Your task to perform on an android device: turn on javascript in the chrome app Image 0: 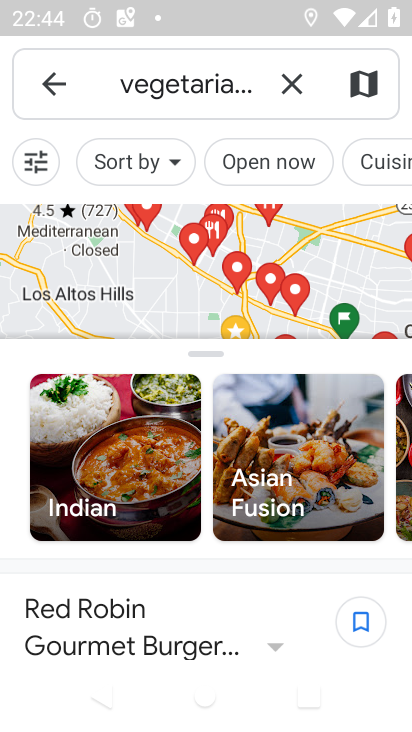
Step 0: press home button
Your task to perform on an android device: turn on javascript in the chrome app Image 1: 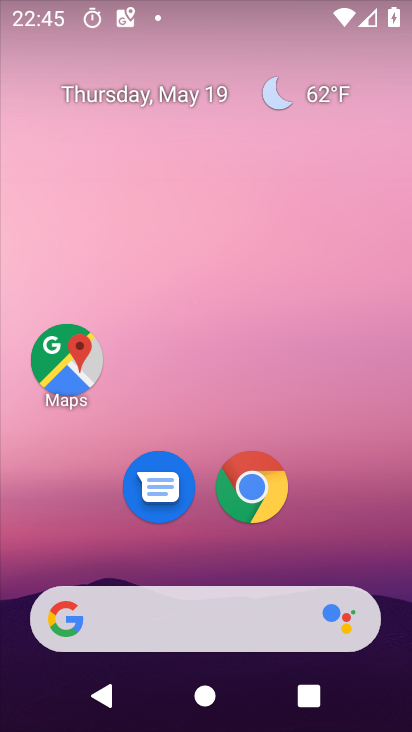
Step 1: click (257, 495)
Your task to perform on an android device: turn on javascript in the chrome app Image 2: 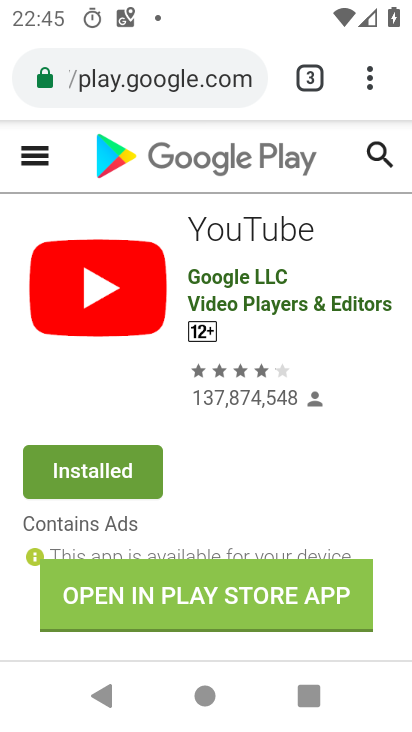
Step 2: click (375, 76)
Your task to perform on an android device: turn on javascript in the chrome app Image 3: 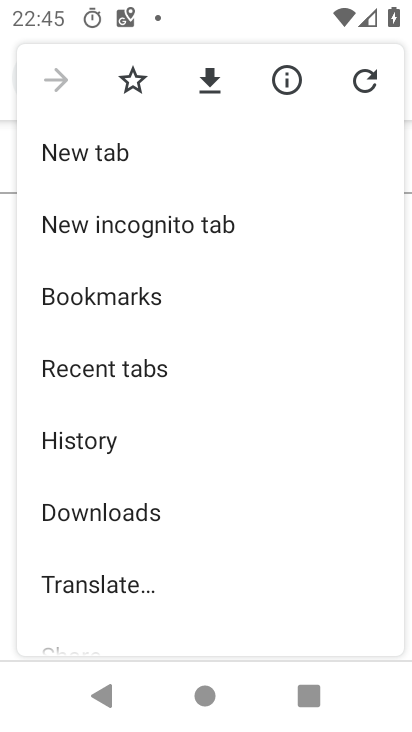
Step 3: drag from (231, 611) to (230, 255)
Your task to perform on an android device: turn on javascript in the chrome app Image 4: 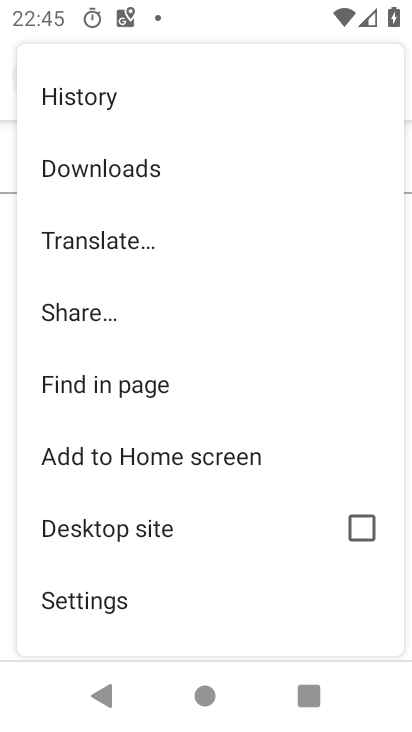
Step 4: click (119, 603)
Your task to perform on an android device: turn on javascript in the chrome app Image 5: 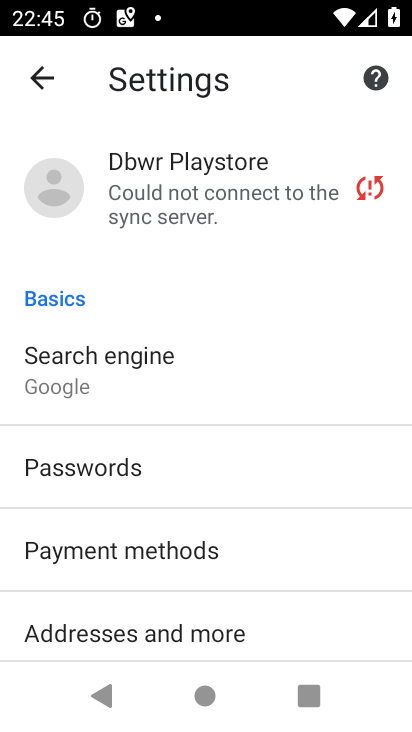
Step 5: drag from (326, 565) to (289, 258)
Your task to perform on an android device: turn on javascript in the chrome app Image 6: 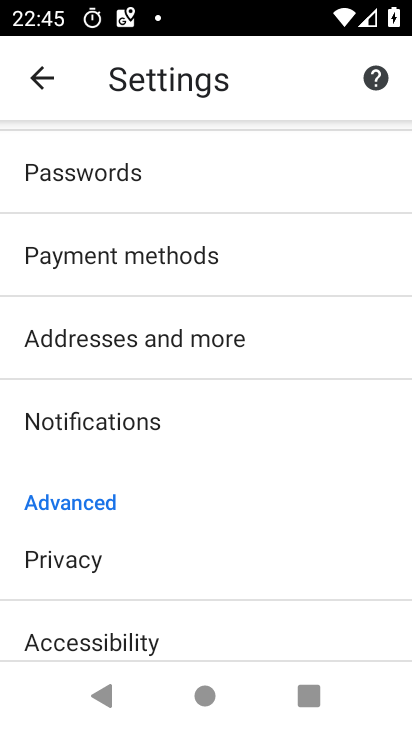
Step 6: drag from (213, 619) to (245, 355)
Your task to perform on an android device: turn on javascript in the chrome app Image 7: 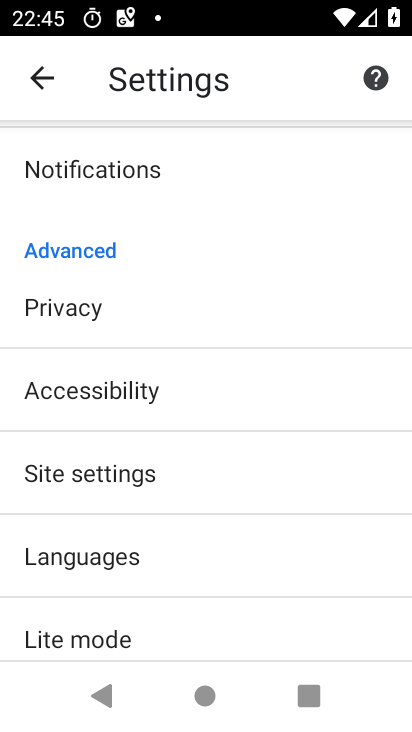
Step 7: click (182, 472)
Your task to perform on an android device: turn on javascript in the chrome app Image 8: 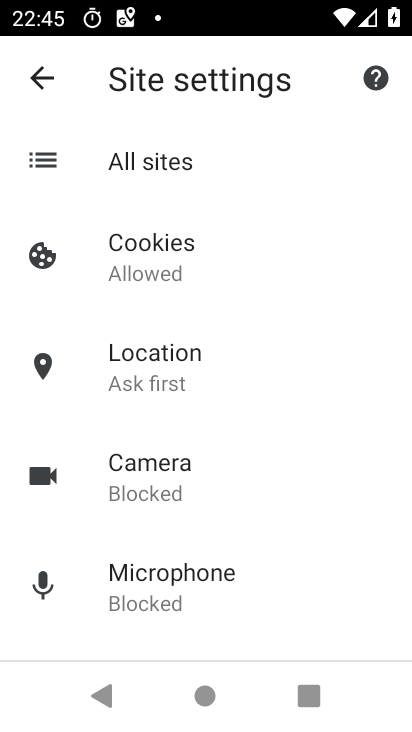
Step 8: drag from (312, 597) to (287, 336)
Your task to perform on an android device: turn on javascript in the chrome app Image 9: 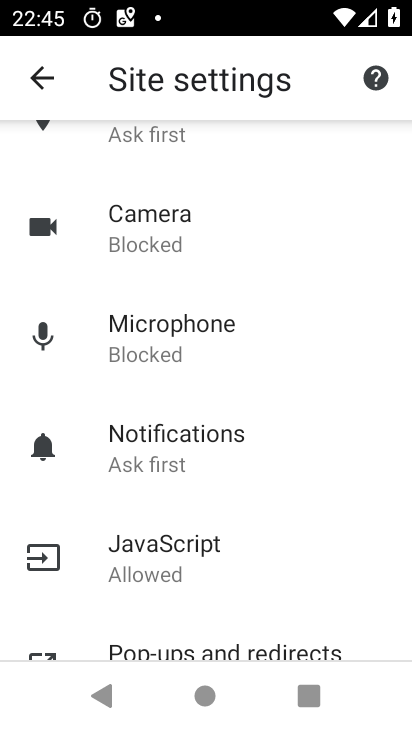
Step 9: click (204, 553)
Your task to perform on an android device: turn on javascript in the chrome app Image 10: 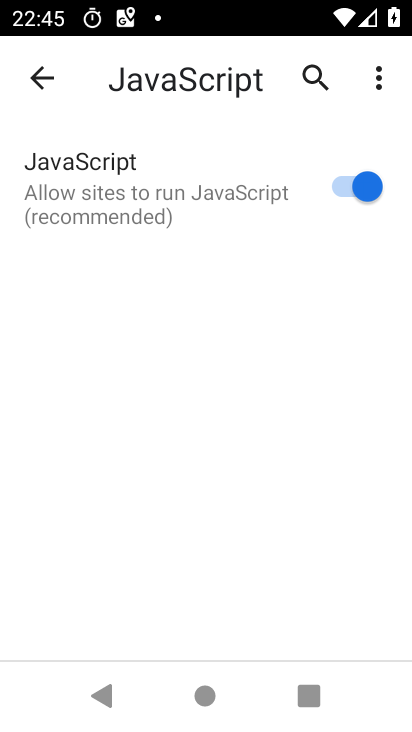
Step 10: task complete